Your task to perform on an android device: Open maps Image 0: 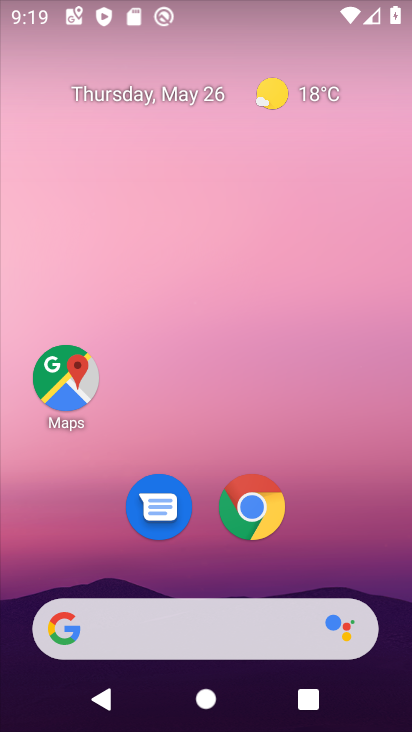
Step 0: press home button
Your task to perform on an android device: Open maps Image 1: 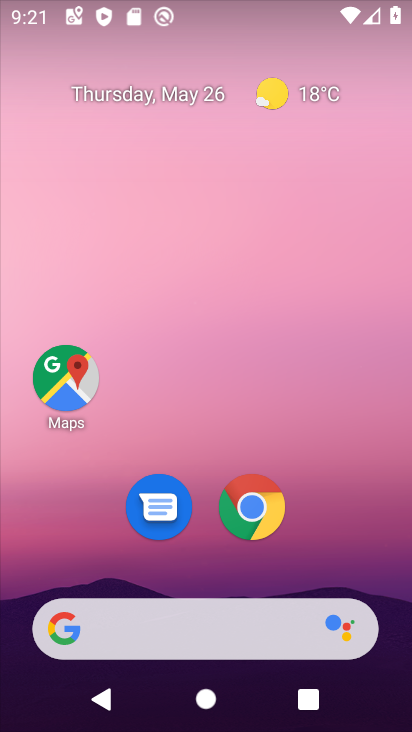
Step 1: drag from (279, 673) to (164, 104)
Your task to perform on an android device: Open maps Image 2: 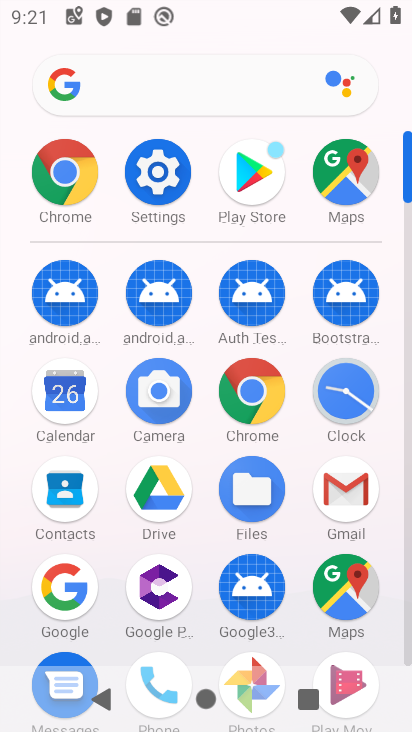
Step 2: click (344, 170)
Your task to perform on an android device: Open maps Image 3: 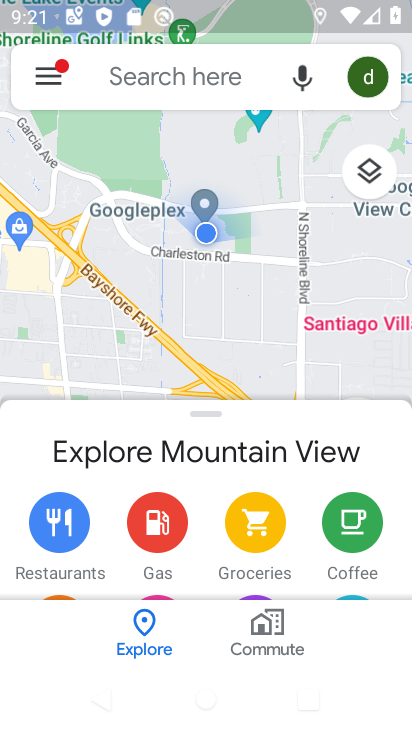
Step 3: task complete